Your task to perform on an android device: install app "Life360: Find Family & Friends" Image 0: 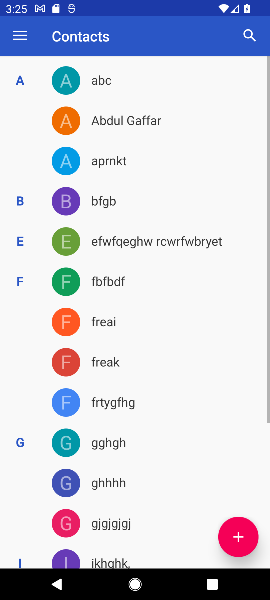
Step 0: press home button
Your task to perform on an android device: install app "Life360: Find Family & Friends" Image 1: 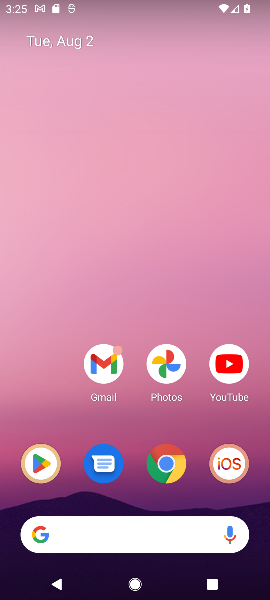
Step 1: click (35, 466)
Your task to perform on an android device: install app "Life360: Find Family & Friends" Image 2: 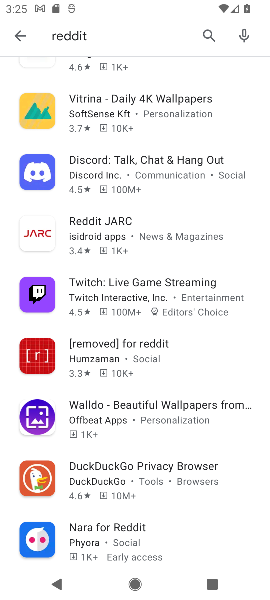
Step 2: click (210, 35)
Your task to perform on an android device: install app "Life360: Find Family & Friends" Image 3: 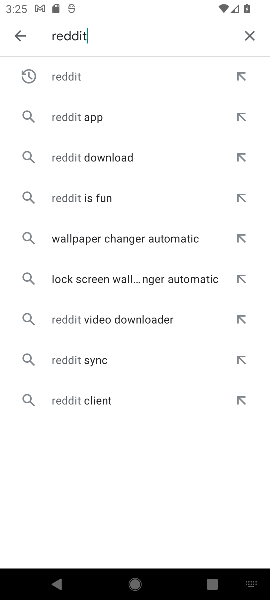
Step 3: click (256, 38)
Your task to perform on an android device: install app "Life360: Find Family & Friends" Image 4: 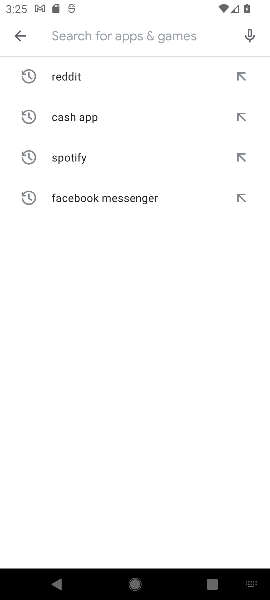
Step 4: type "Life360: Find Family & Friends"
Your task to perform on an android device: install app "Life360: Find Family & Friends" Image 5: 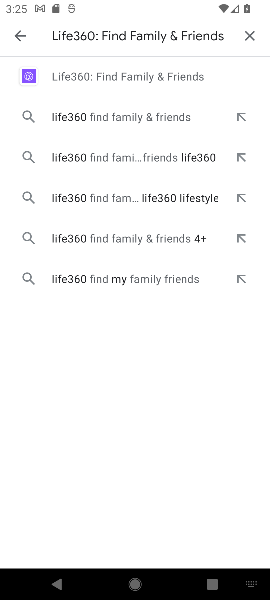
Step 5: click (99, 74)
Your task to perform on an android device: install app "Life360: Find Family & Friends" Image 6: 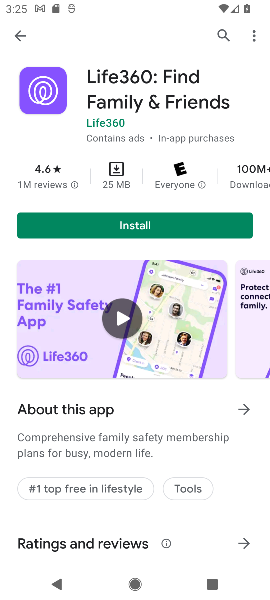
Step 6: click (125, 225)
Your task to perform on an android device: install app "Life360: Find Family & Friends" Image 7: 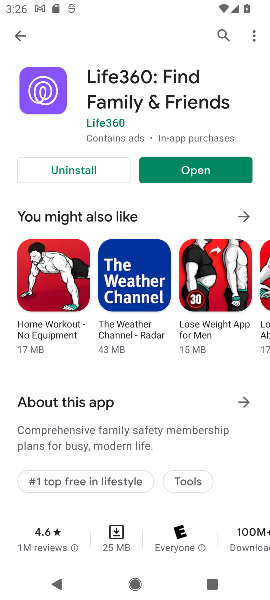
Step 7: task complete